Your task to perform on an android device: Open CNN.com Image 0: 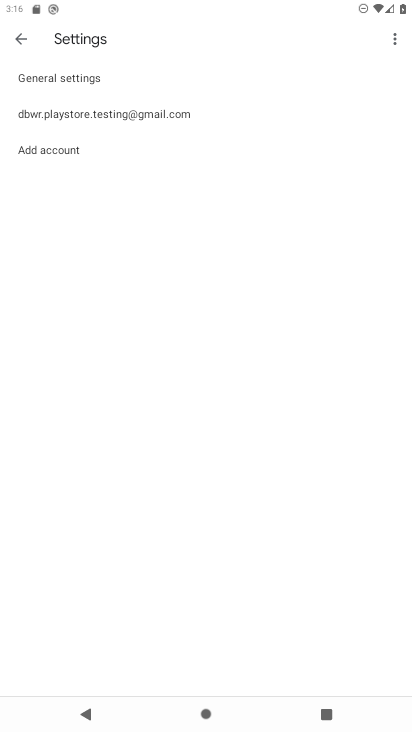
Step 0: press home button
Your task to perform on an android device: Open CNN.com Image 1: 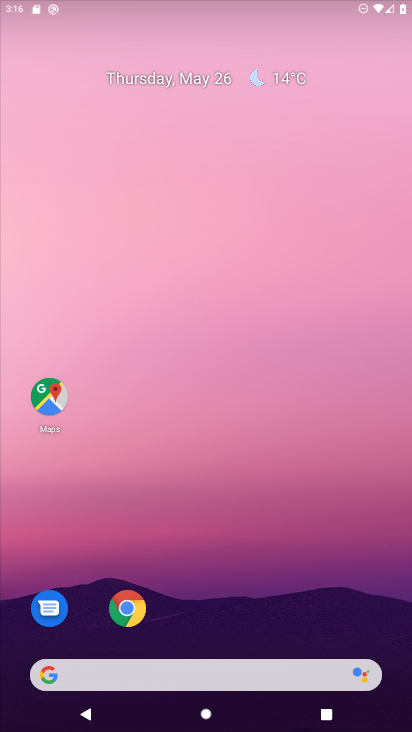
Step 1: drag from (334, 594) to (411, 89)
Your task to perform on an android device: Open CNN.com Image 2: 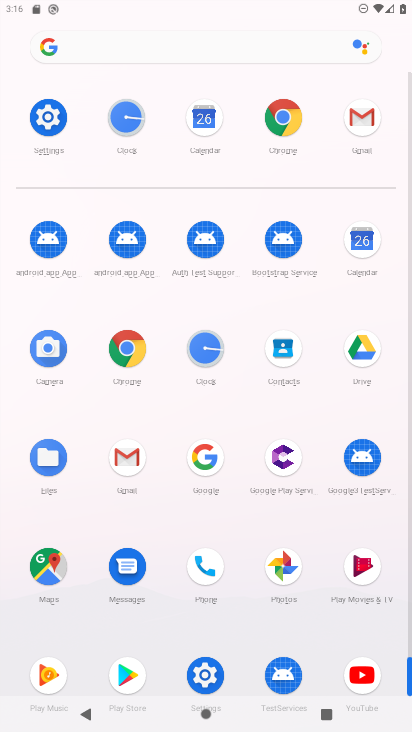
Step 2: click (279, 121)
Your task to perform on an android device: Open CNN.com Image 3: 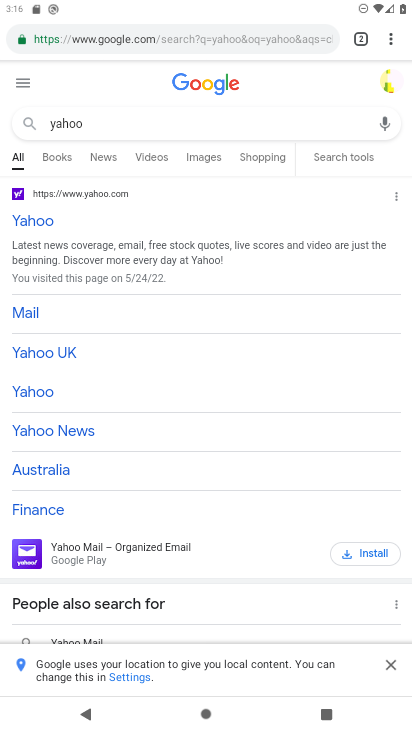
Step 3: click (208, 33)
Your task to perform on an android device: Open CNN.com Image 4: 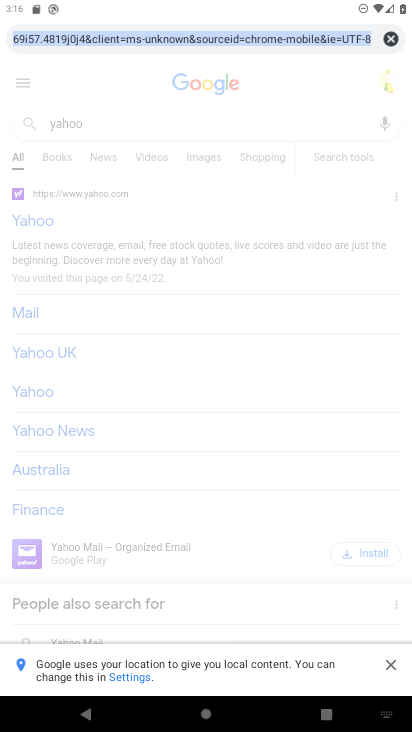
Step 4: click (388, 39)
Your task to perform on an android device: Open CNN.com Image 5: 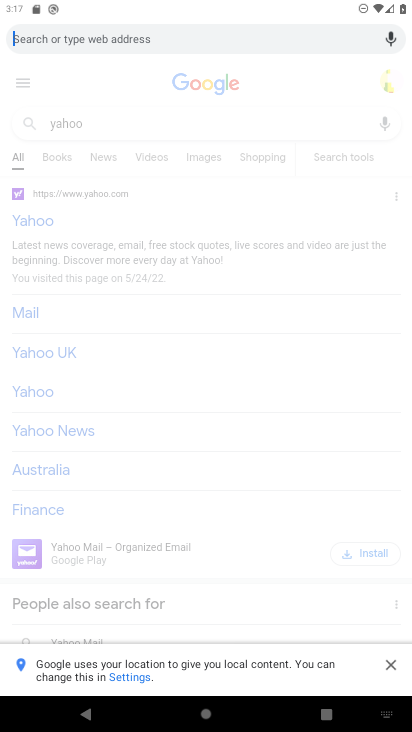
Step 5: type "cnn"
Your task to perform on an android device: Open CNN.com Image 6: 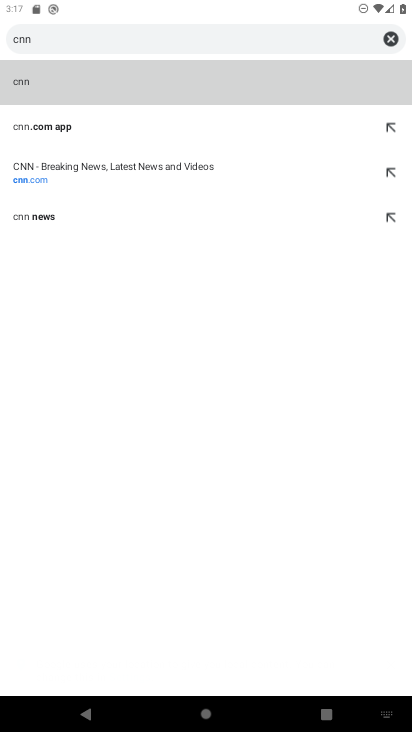
Step 6: click (55, 177)
Your task to perform on an android device: Open CNN.com Image 7: 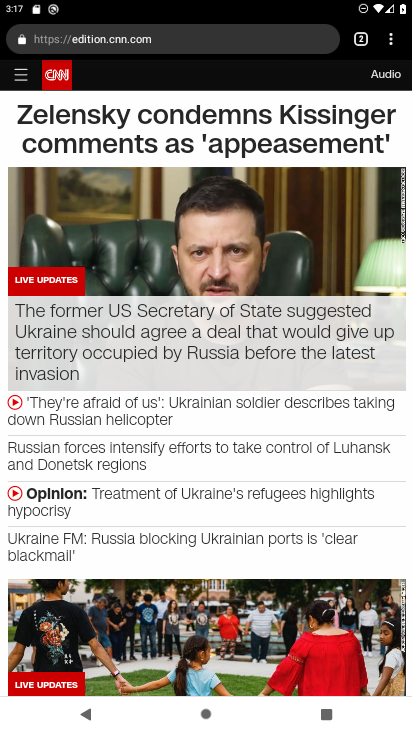
Step 7: task complete